Your task to perform on an android device: Open Google Chrome Image 0: 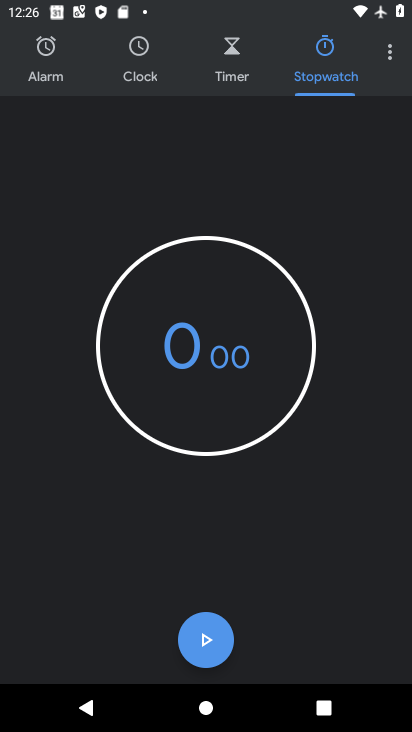
Step 0: press home button
Your task to perform on an android device: Open Google Chrome Image 1: 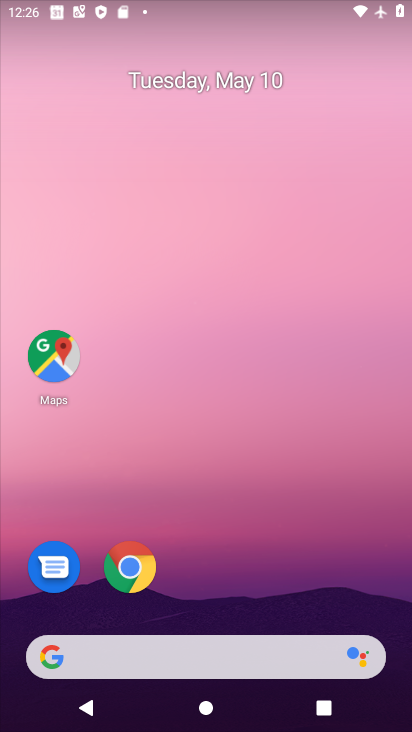
Step 1: drag from (370, 588) to (223, 107)
Your task to perform on an android device: Open Google Chrome Image 2: 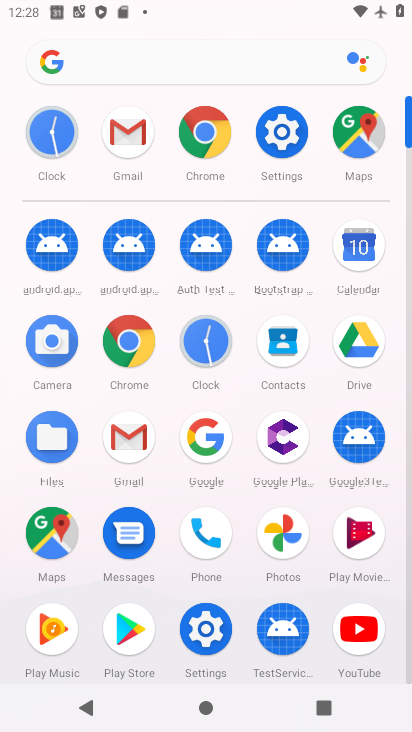
Step 2: click (100, 368)
Your task to perform on an android device: Open Google Chrome Image 3: 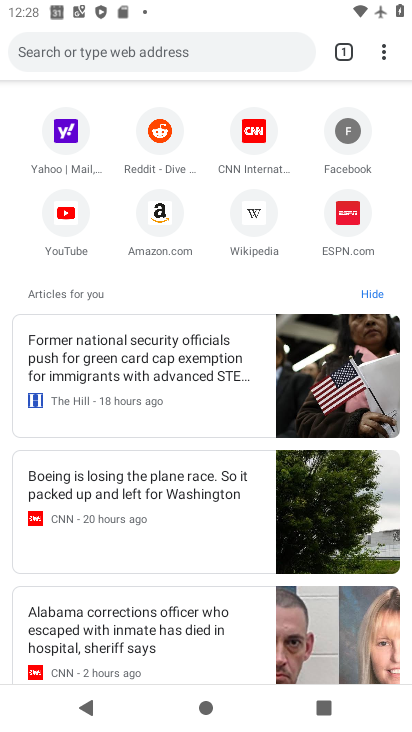
Step 3: task complete